Your task to perform on an android device: show emergency info Image 0: 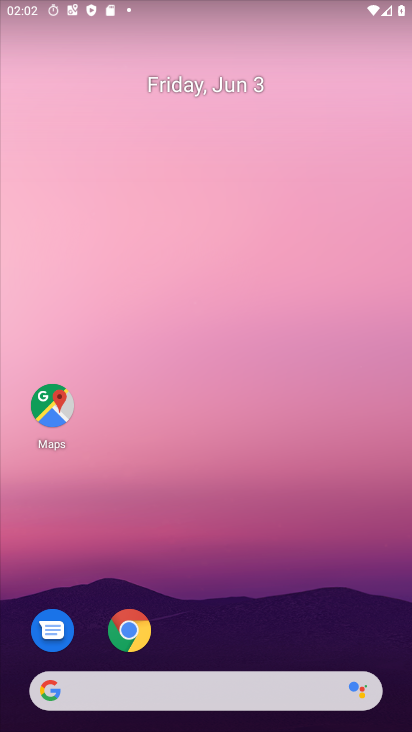
Step 0: drag from (226, 642) to (140, 246)
Your task to perform on an android device: show emergency info Image 1: 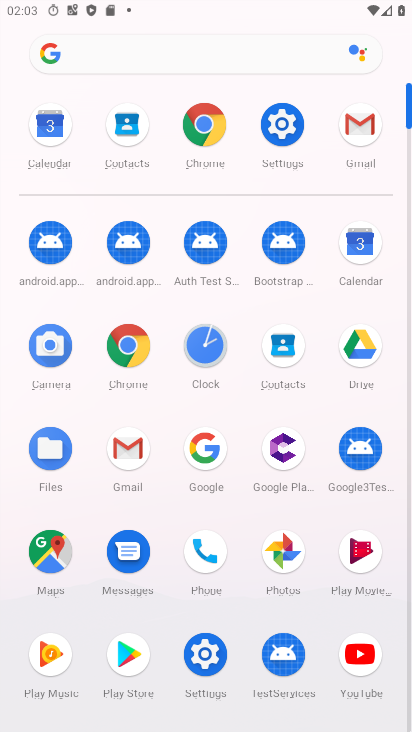
Step 1: click (293, 141)
Your task to perform on an android device: show emergency info Image 2: 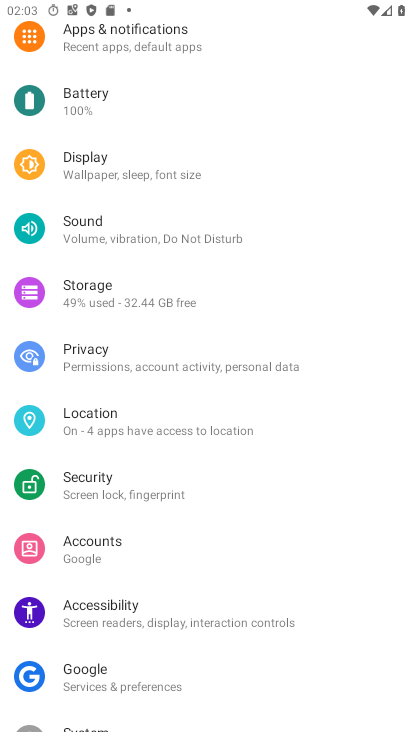
Step 2: drag from (160, 621) to (95, 129)
Your task to perform on an android device: show emergency info Image 3: 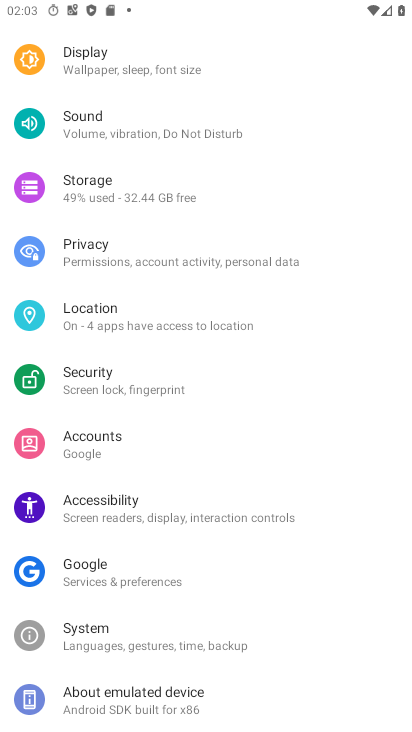
Step 3: click (134, 707)
Your task to perform on an android device: show emergency info Image 4: 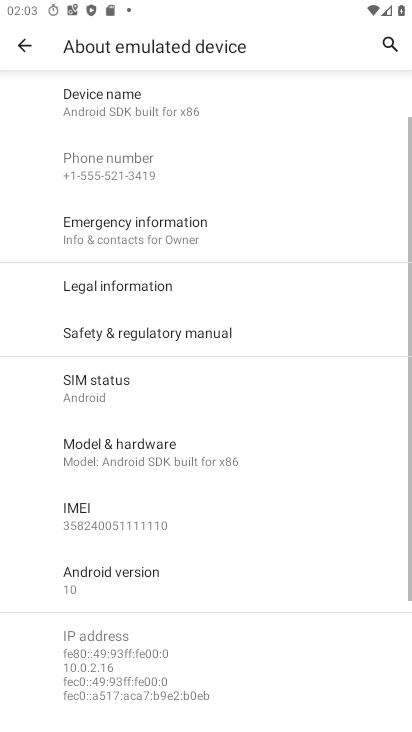
Step 4: click (228, 240)
Your task to perform on an android device: show emergency info Image 5: 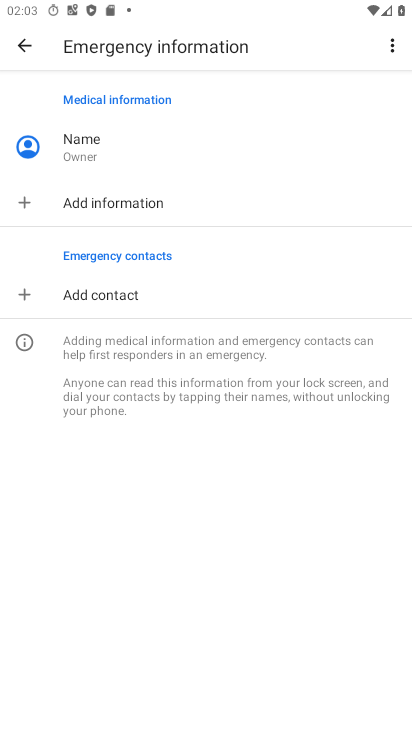
Step 5: task complete